Your task to perform on an android device: Open calendar and show me the fourth week of next month Image 0: 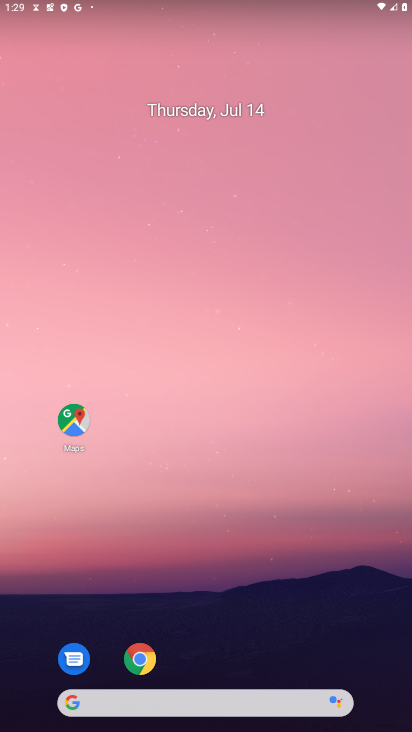
Step 0: drag from (62, 595) to (342, 133)
Your task to perform on an android device: Open calendar and show me the fourth week of next month Image 1: 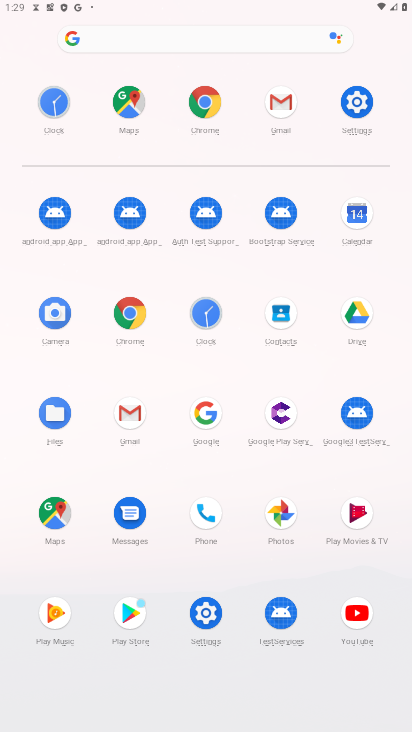
Step 1: click (358, 222)
Your task to perform on an android device: Open calendar and show me the fourth week of next month Image 2: 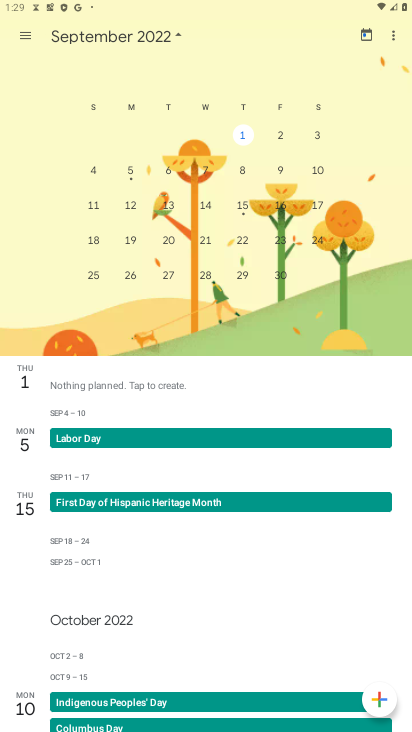
Step 2: click (127, 236)
Your task to perform on an android device: Open calendar and show me the fourth week of next month Image 3: 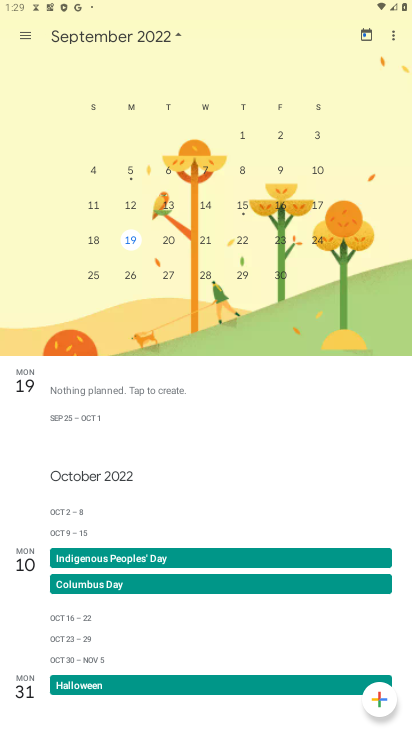
Step 3: task complete